Your task to perform on an android device: What's the weather going to be tomorrow? Image 0: 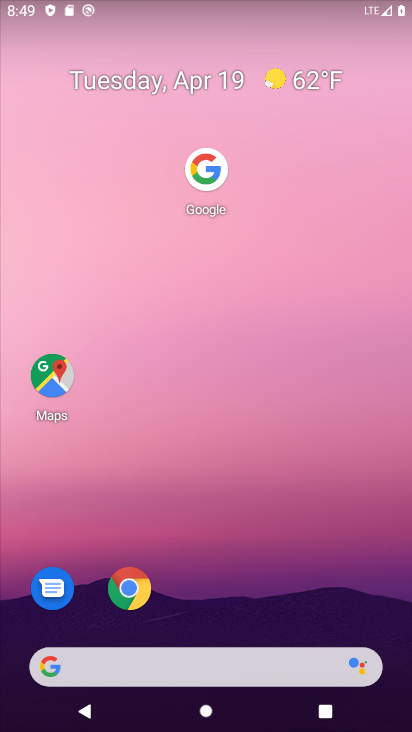
Step 0: click (301, 80)
Your task to perform on an android device: What's the weather going to be tomorrow? Image 1: 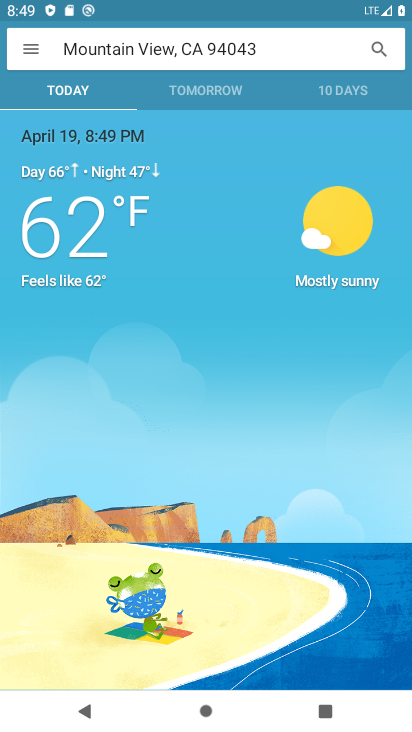
Step 1: click (219, 91)
Your task to perform on an android device: What's the weather going to be tomorrow? Image 2: 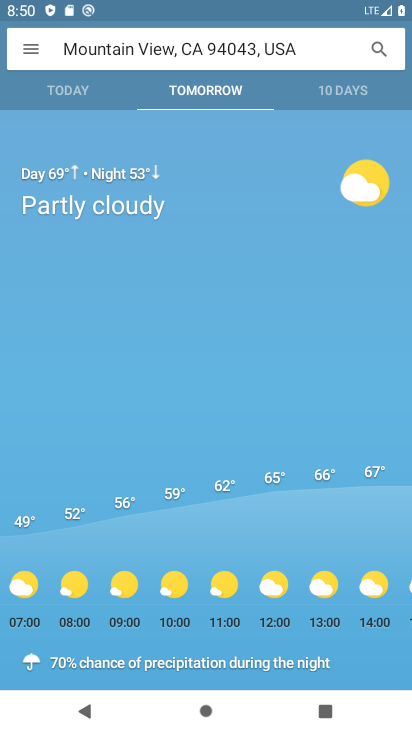
Step 2: task complete